Your task to perform on an android device: refresh tabs in the chrome app Image 0: 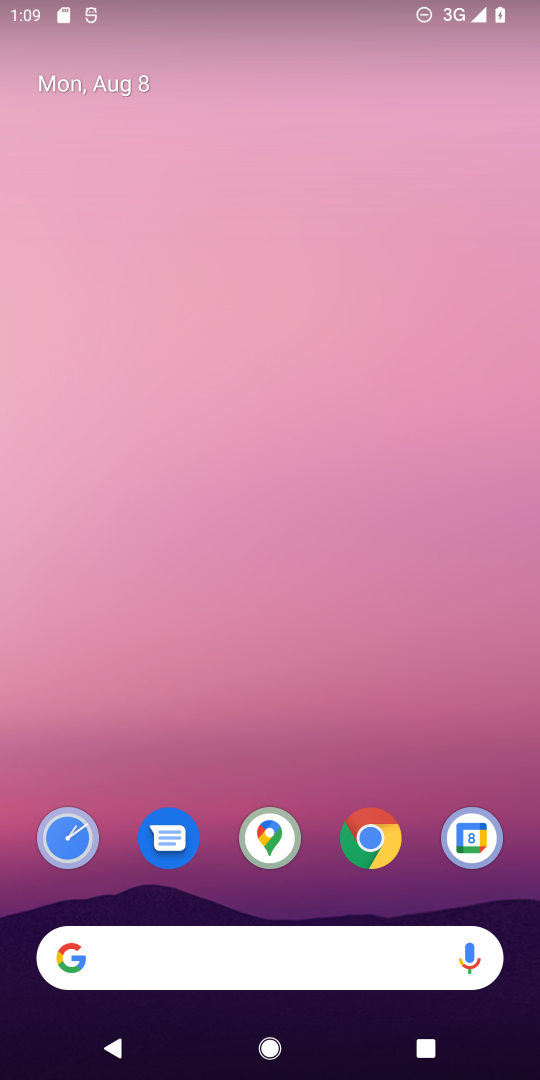
Step 0: press home button
Your task to perform on an android device: refresh tabs in the chrome app Image 1: 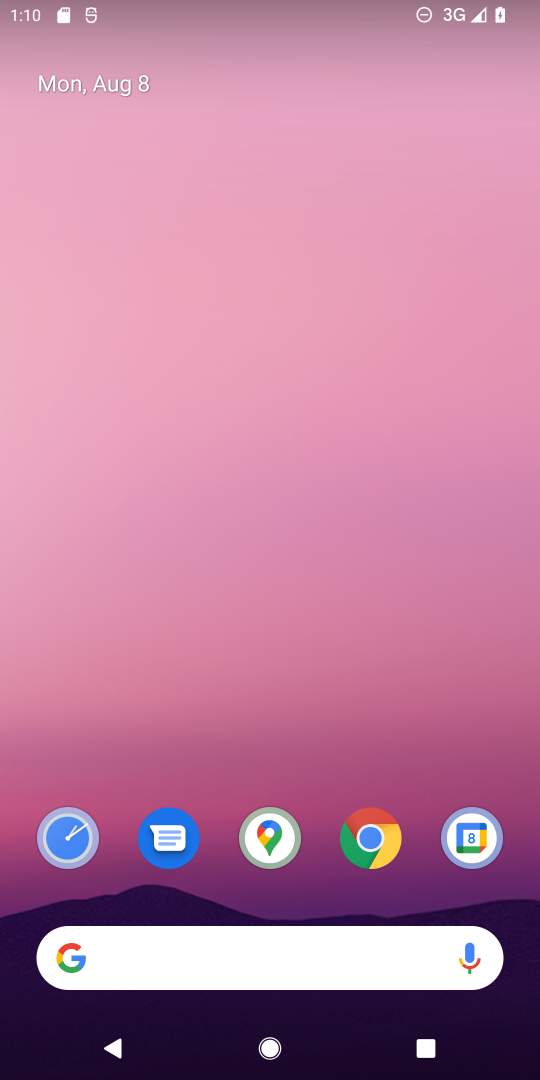
Step 1: click (370, 836)
Your task to perform on an android device: refresh tabs in the chrome app Image 2: 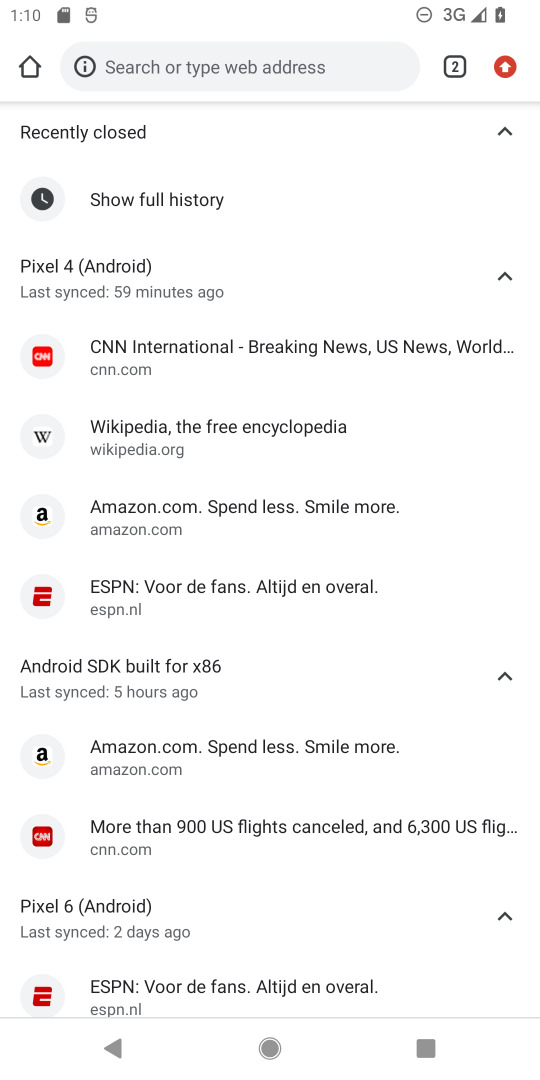
Step 2: click (501, 61)
Your task to perform on an android device: refresh tabs in the chrome app Image 3: 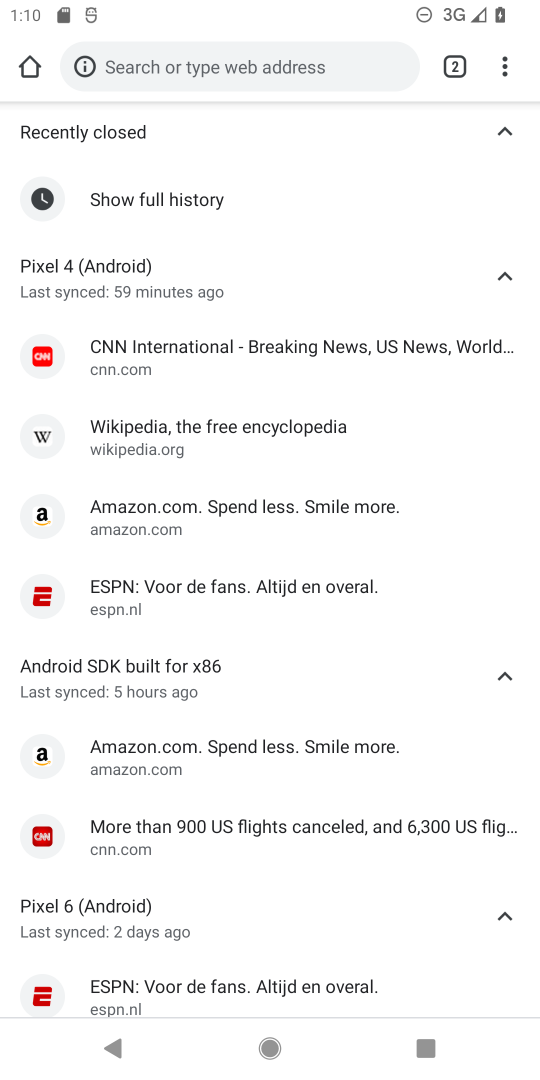
Step 3: task complete